Your task to perform on an android device: Show me the alarms in the clock app Image 0: 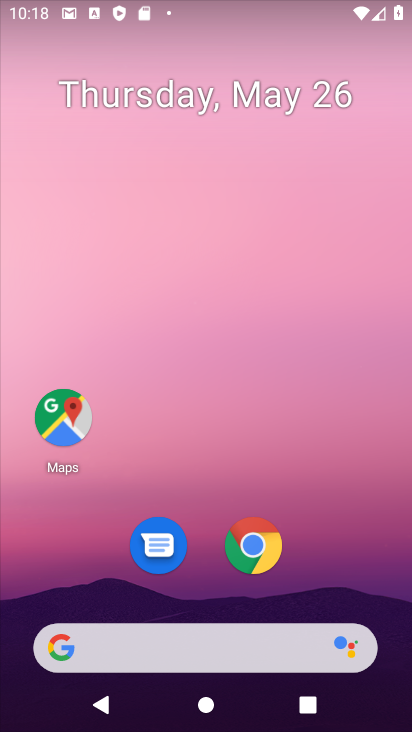
Step 0: press home button
Your task to perform on an android device: Show me the alarms in the clock app Image 1: 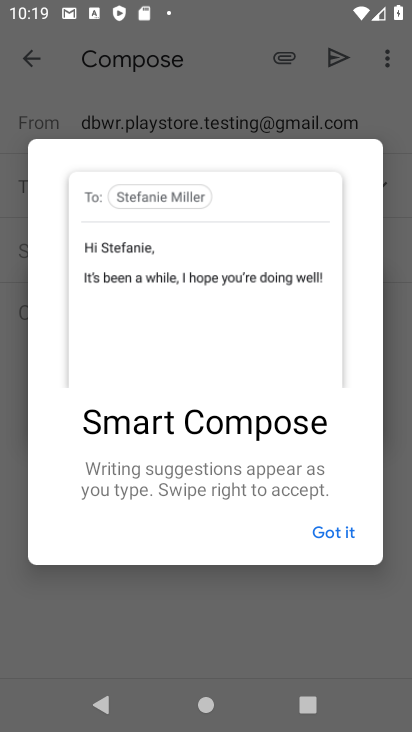
Step 1: press home button
Your task to perform on an android device: Show me the alarms in the clock app Image 2: 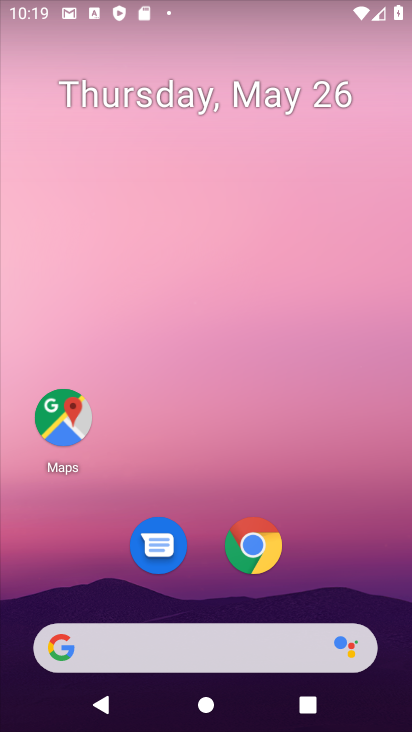
Step 2: drag from (317, 597) to (354, 108)
Your task to perform on an android device: Show me the alarms in the clock app Image 3: 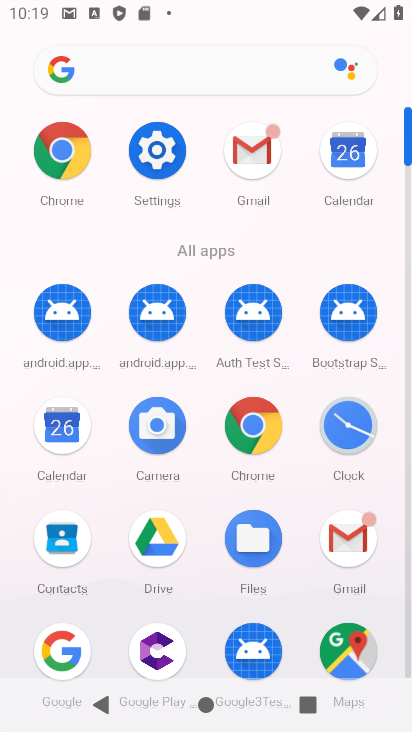
Step 3: click (347, 444)
Your task to perform on an android device: Show me the alarms in the clock app Image 4: 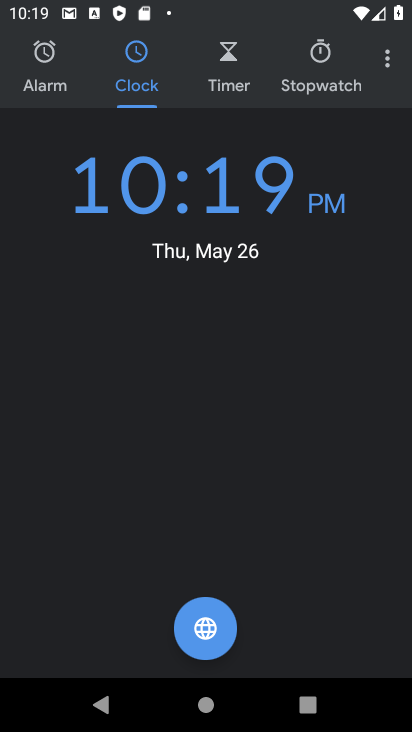
Step 4: click (43, 67)
Your task to perform on an android device: Show me the alarms in the clock app Image 5: 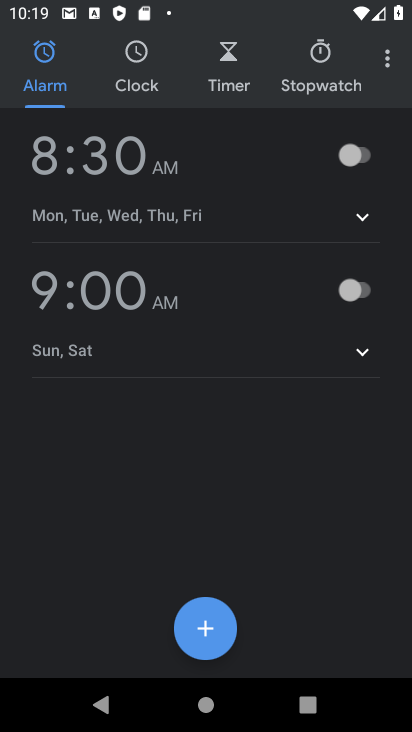
Step 5: task complete